Your task to perform on an android device: set an alarm Image 0: 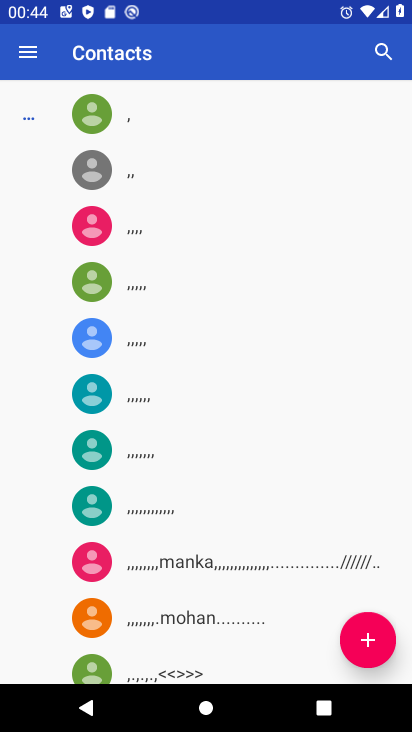
Step 0: drag from (216, 584) to (117, 132)
Your task to perform on an android device: set an alarm Image 1: 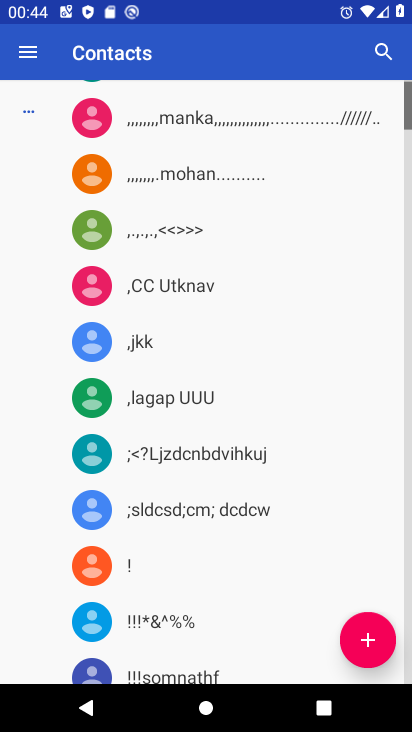
Step 1: press home button
Your task to perform on an android device: set an alarm Image 2: 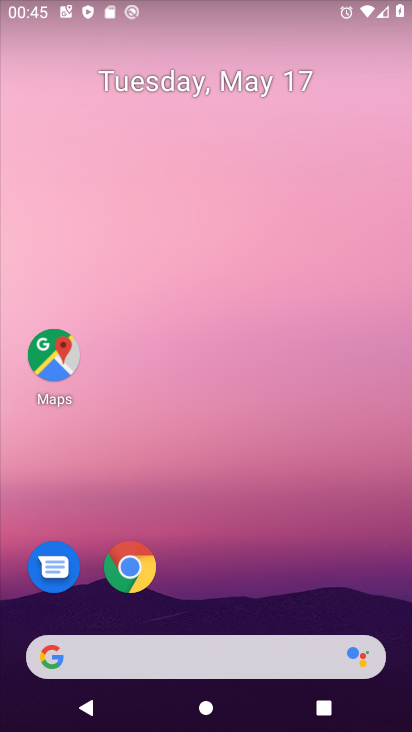
Step 2: drag from (287, 560) to (129, 59)
Your task to perform on an android device: set an alarm Image 3: 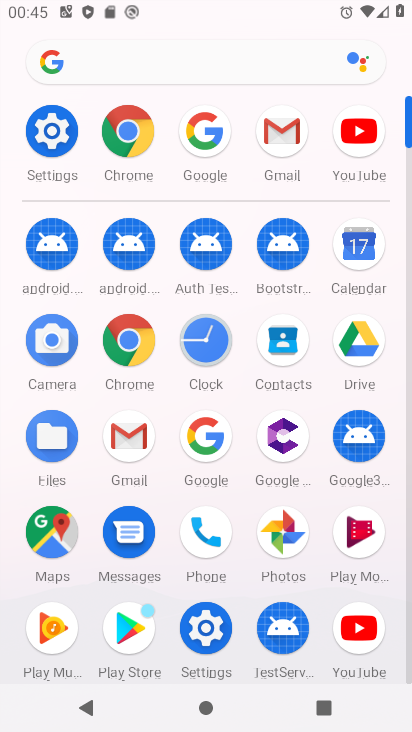
Step 3: click (217, 347)
Your task to perform on an android device: set an alarm Image 4: 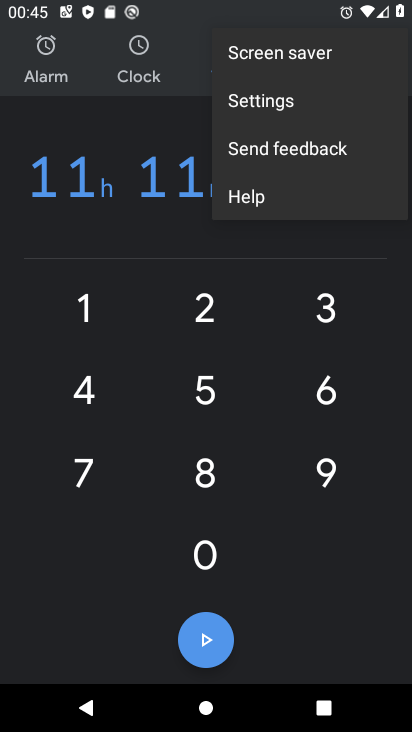
Step 4: click (53, 60)
Your task to perform on an android device: set an alarm Image 5: 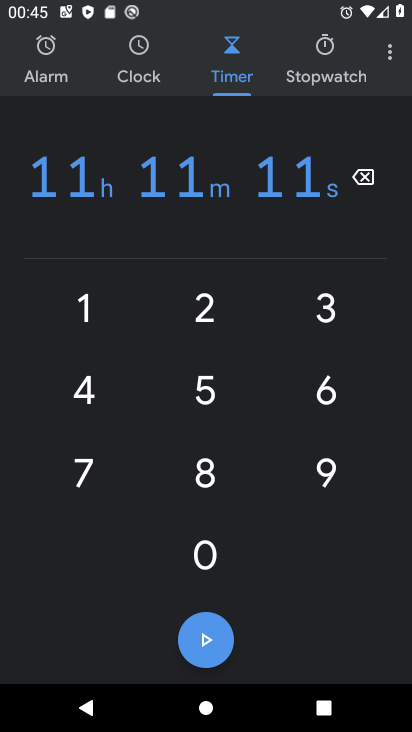
Step 5: click (49, 61)
Your task to perform on an android device: set an alarm Image 6: 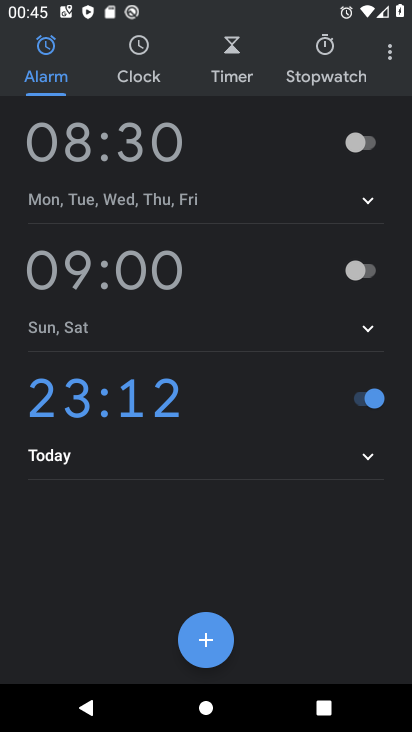
Step 6: click (49, 61)
Your task to perform on an android device: set an alarm Image 7: 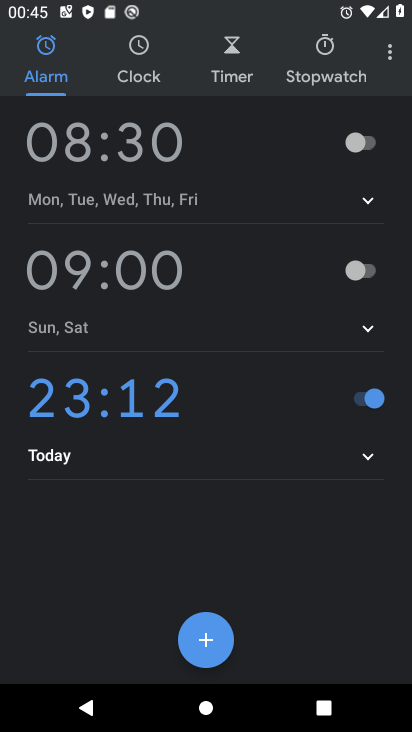
Step 7: click (213, 644)
Your task to perform on an android device: set an alarm Image 8: 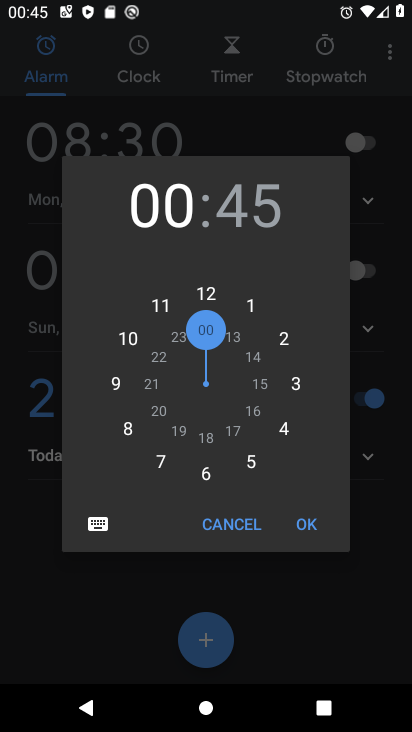
Step 8: click (309, 541)
Your task to perform on an android device: set an alarm Image 9: 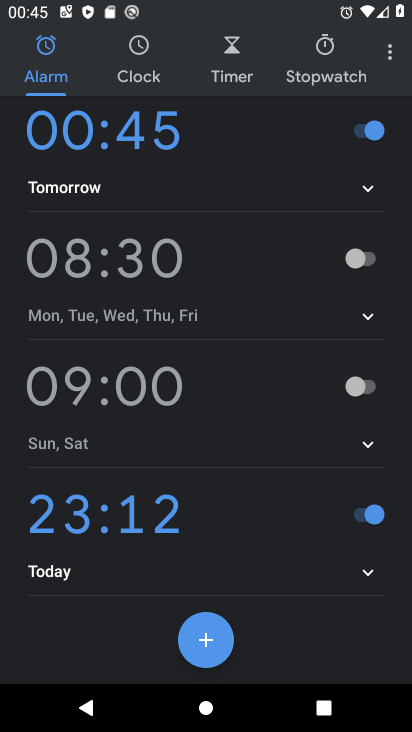
Step 9: task complete